Your task to perform on an android device: Show me productivity apps on the Play Store Image 0: 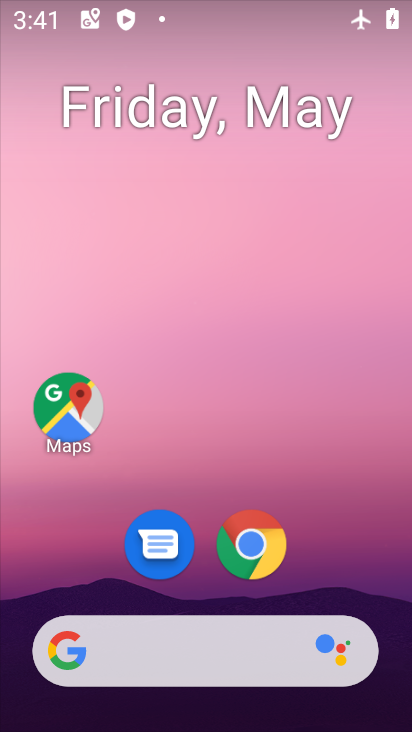
Step 0: drag from (254, 692) to (36, 6)
Your task to perform on an android device: Show me productivity apps on the Play Store Image 1: 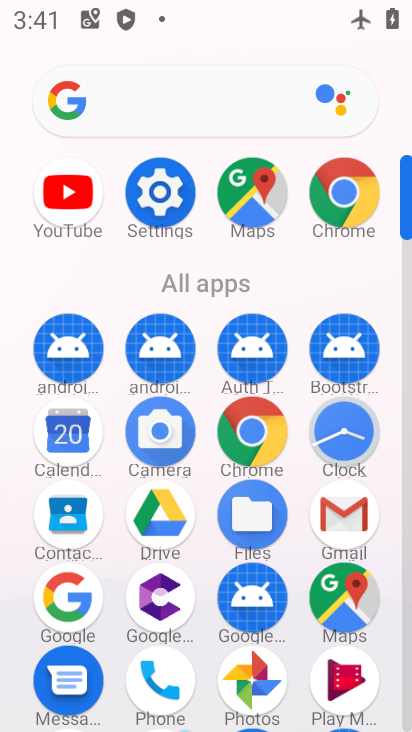
Step 1: drag from (179, 567) to (154, 226)
Your task to perform on an android device: Show me productivity apps on the Play Store Image 2: 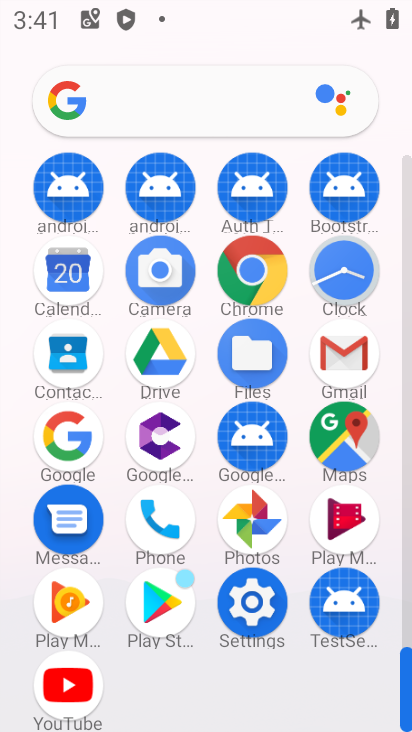
Step 2: drag from (184, 414) to (184, 142)
Your task to perform on an android device: Show me productivity apps on the Play Store Image 3: 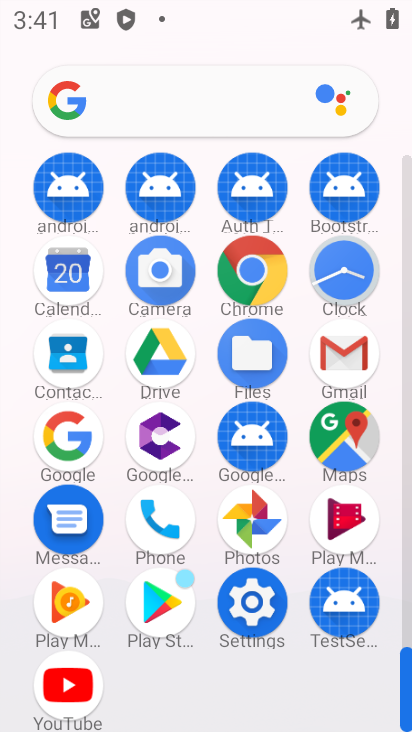
Step 3: click (170, 611)
Your task to perform on an android device: Show me productivity apps on the Play Store Image 4: 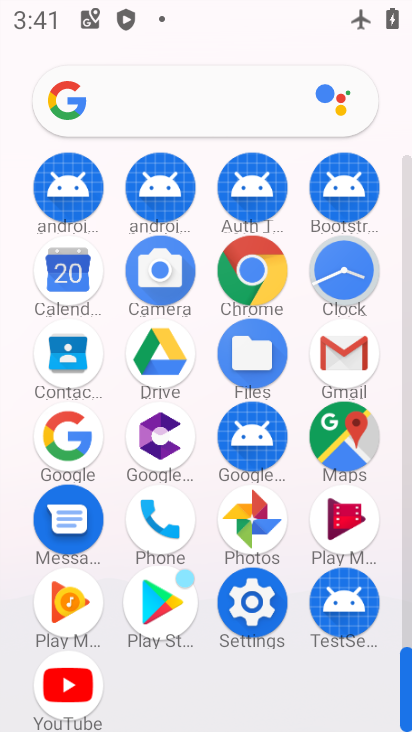
Step 4: click (169, 611)
Your task to perform on an android device: Show me productivity apps on the Play Store Image 5: 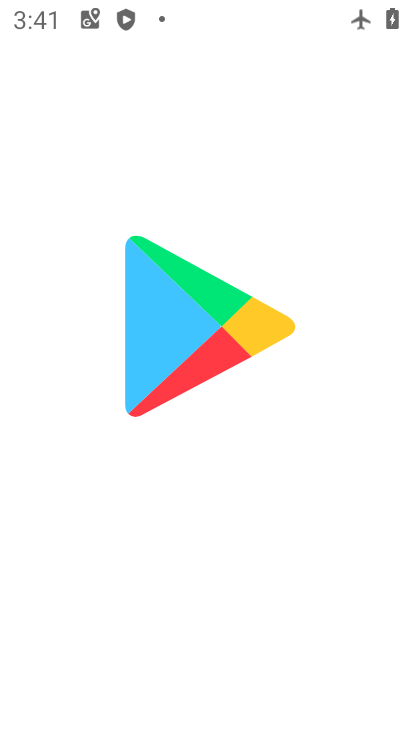
Step 5: click (172, 604)
Your task to perform on an android device: Show me productivity apps on the Play Store Image 6: 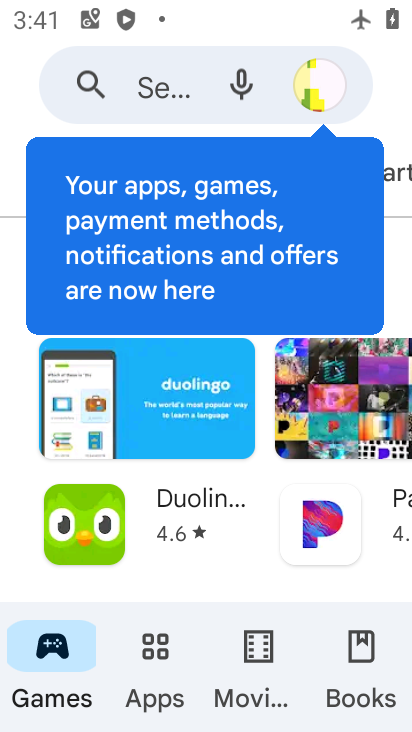
Step 6: press back button
Your task to perform on an android device: Show me productivity apps on the Play Store Image 7: 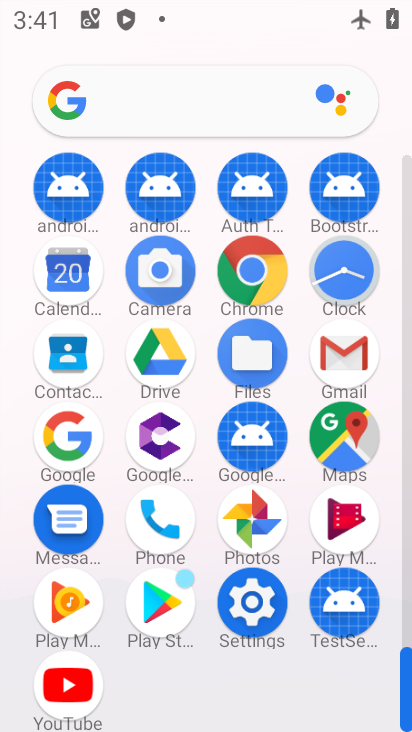
Step 7: click (257, 608)
Your task to perform on an android device: Show me productivity apps on the Play Store Image 8: 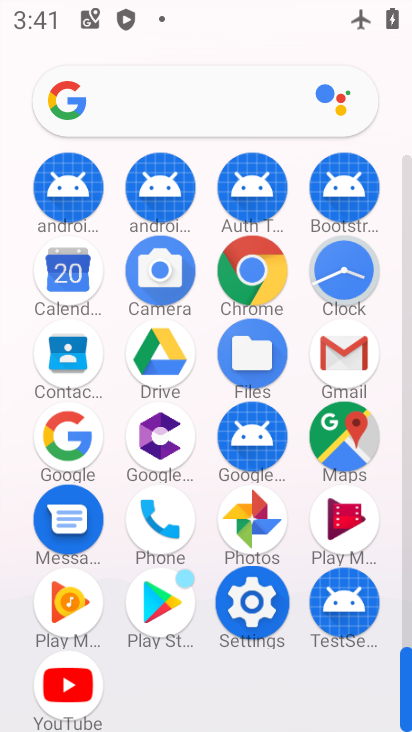
Step 8: click (257, 608)
Your task to perform on an android device: Show me productivity apps on the Play Store Image 9: 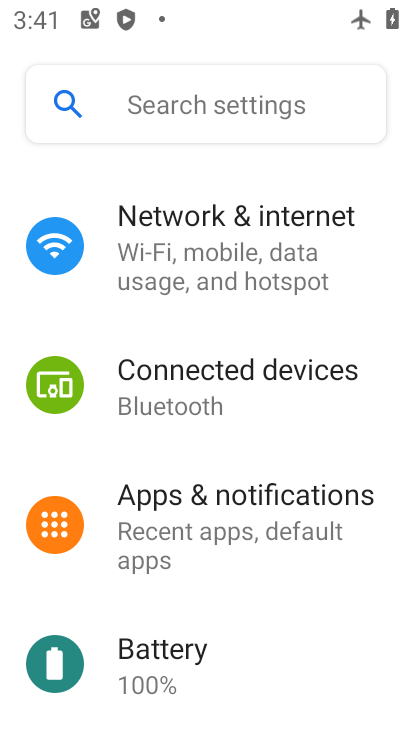
Step 9: click (179, 226)
Your task to perform on an android device: Show me productivity apps on the Play Store Image 10: 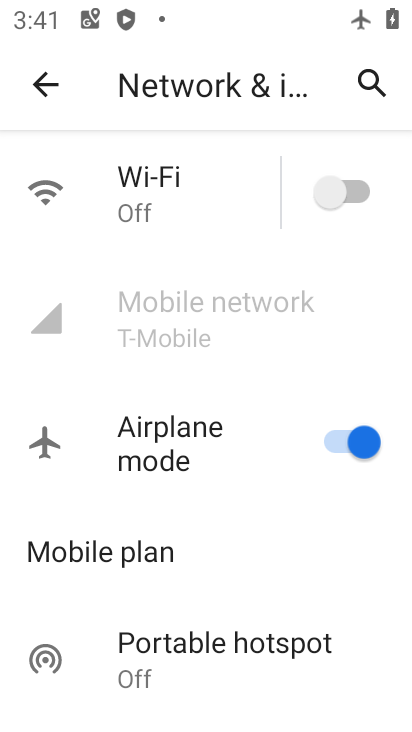
Step 10: click (365, 446)
Your task to perform on an android device: Show me productivity apps on the Play Store Image 11: 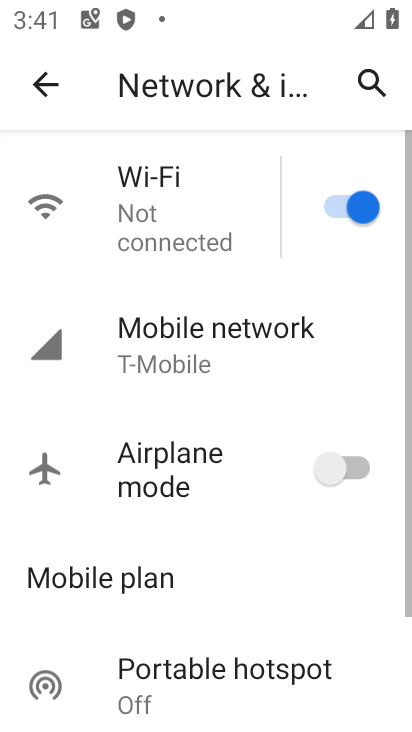
Step 11: click (332, 191)
Your task to perform on an android device: Show me productivity apps on the Play Store Image 12: 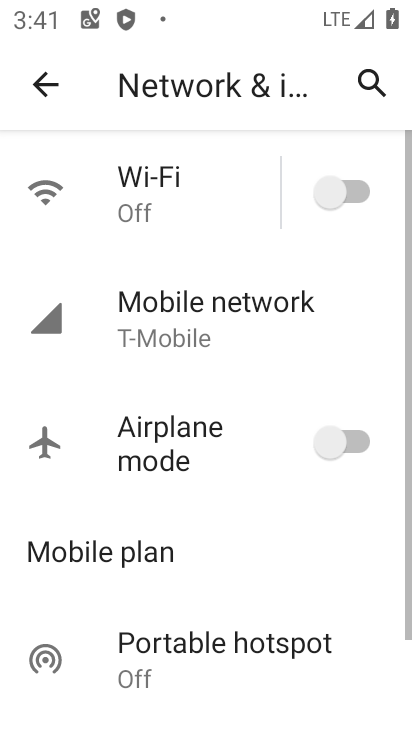
Step 12: click (332, 191)
Your task to perform on an android device: Show me productivity apps on the Play Store Image 13: 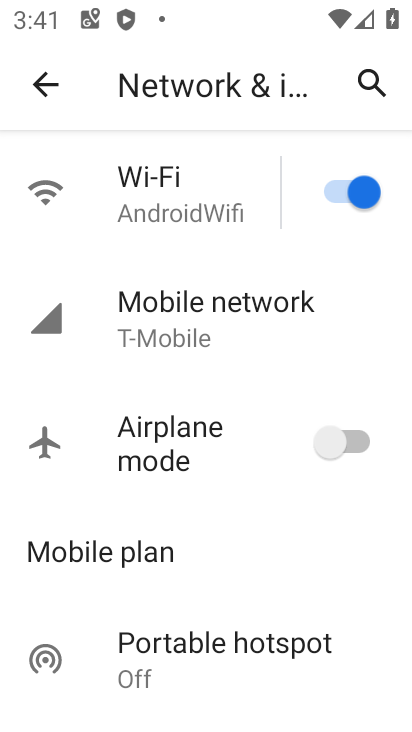
Step 13: press back button
Your task to perform on an android device: Show me productivity apps on the Play Store Image 14: 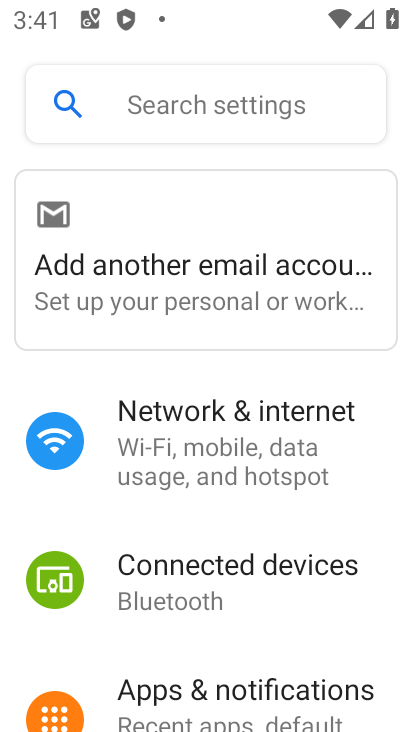
Step 14: press home button
Your task to perform on an android device: Show me productivity apps on the Play Store Image 15: 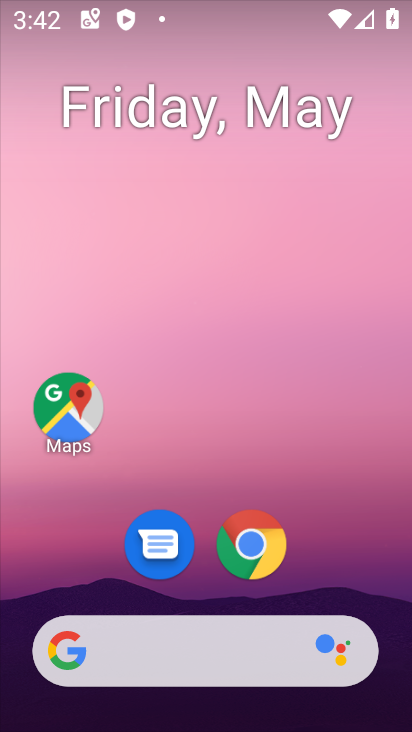
Step 15: drag from (211, 27) to (192, 83)
Your task to perform on an android device: Show me productivity apps on the Play Store Image 16: 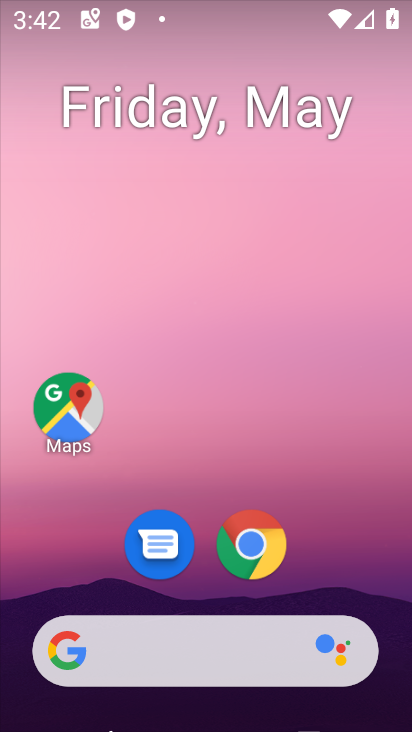
Step 16: drag from (285, 282) to (326, 8)
Your task to perform on an android device: Show me productivity apps on the Play Store Image 17: 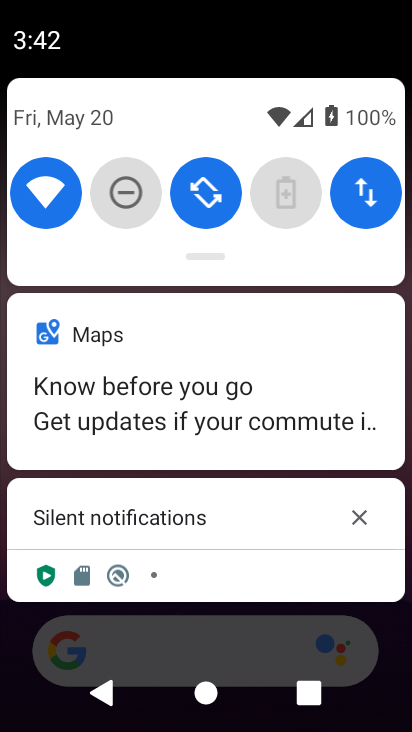
Step 17: click (358, 513)
Your task to perform on an android device: Show me productivity apps on the Play Store Image 18: 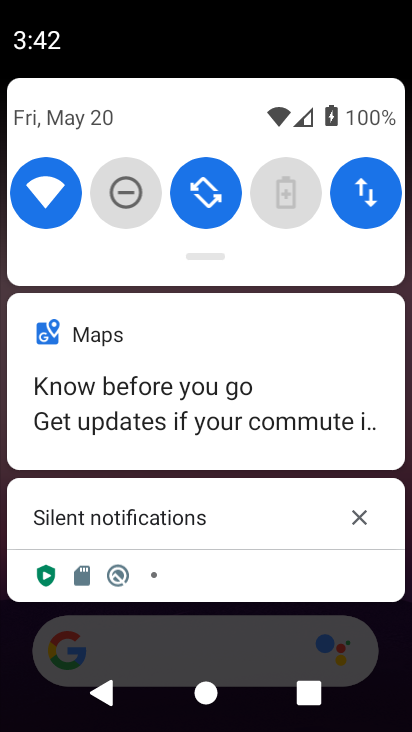
Step 18: click (358, 513)
Your task to perform on an android device: Show me productivity apps on the Play Store Image 19: 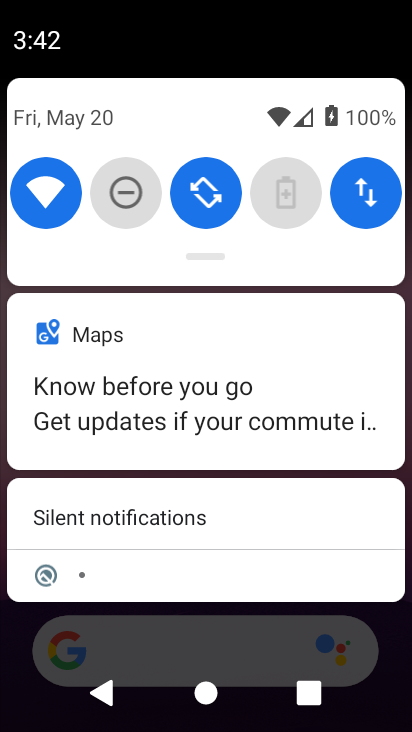
Step 19: click (358, 513)
Your task to perform on an android device: Show me productivity apps on the Play Store Image 20: 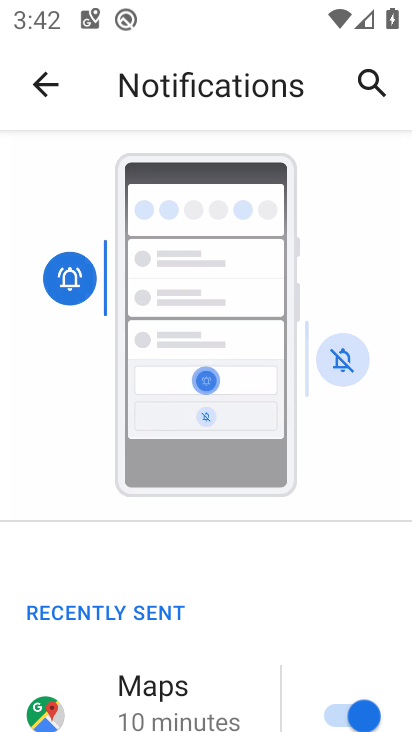
Step 20: press back button
Your task to perform on an android device: Show me productivity apps on the Play Store Image 21: 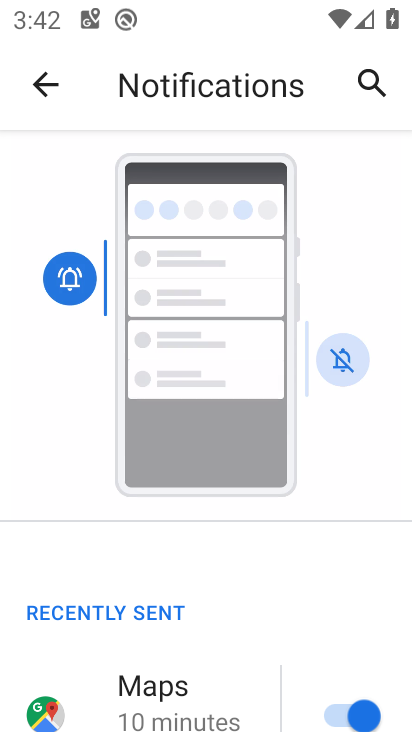
Step 21: press back button
Your task to perform on an android device: Show me productivity apps on the Play Store Image 22: 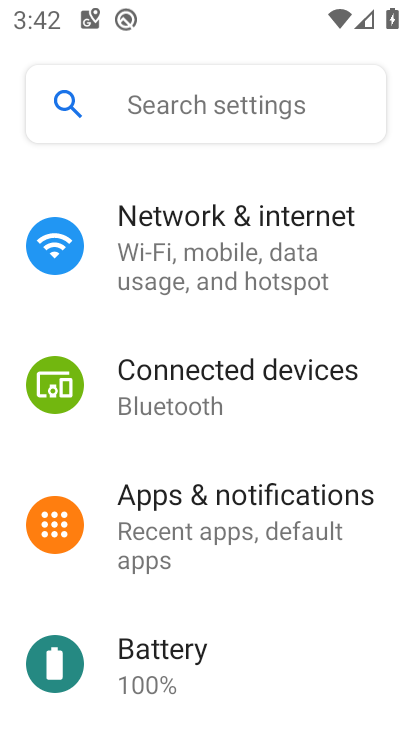
Step 22: press back button
Your task to perform on an android device: Show me productivity apps on the Play Store Image 23: 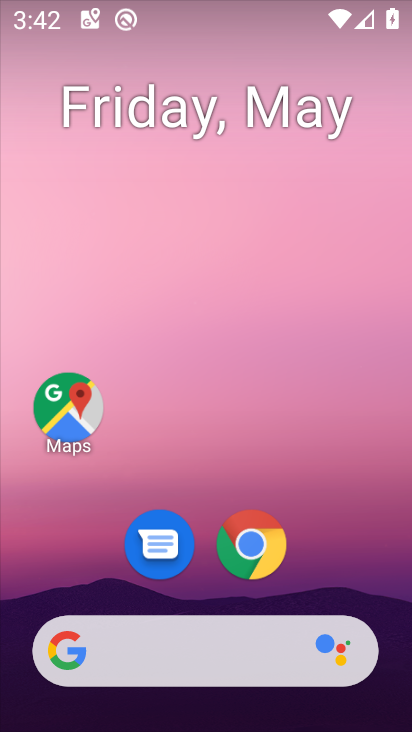
Step 23: drag from (258, 696) to (37, 8)
Your task to perform on an android device: Show me productivity apps on the Play Store Image 24: 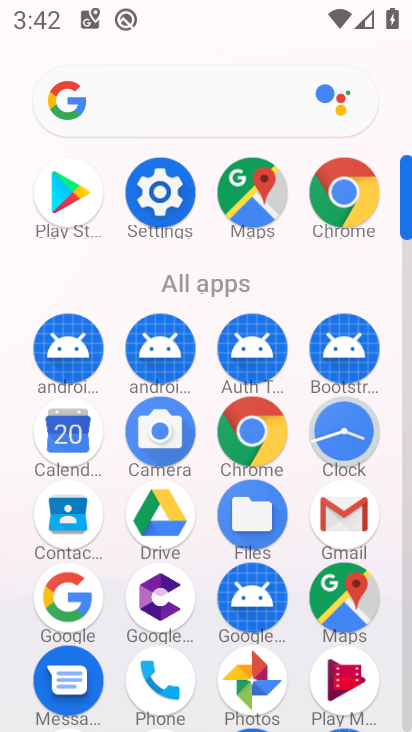
Step 24: drag from (192, 575) to (159, 81)
Your task to perform on an android device: Show me productivity apps on the Play Store Image 25: 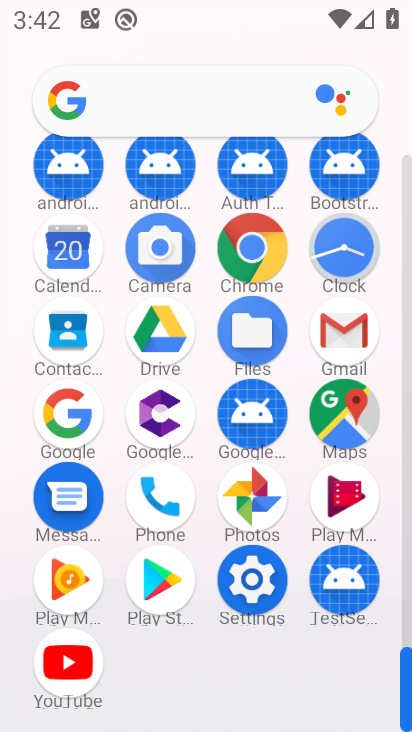
Step 25: drag from (188, 426) to (173, 123)
Your task to perform on an android device: Show me productivity apps on the Play Store Image 26: 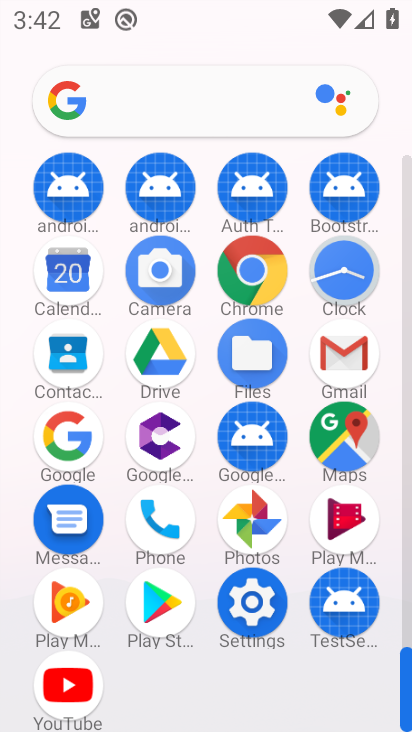
Step 26: click (153, 593)
Your task to perform on an android device: Show me productivity apps on the Play Store Image 27: 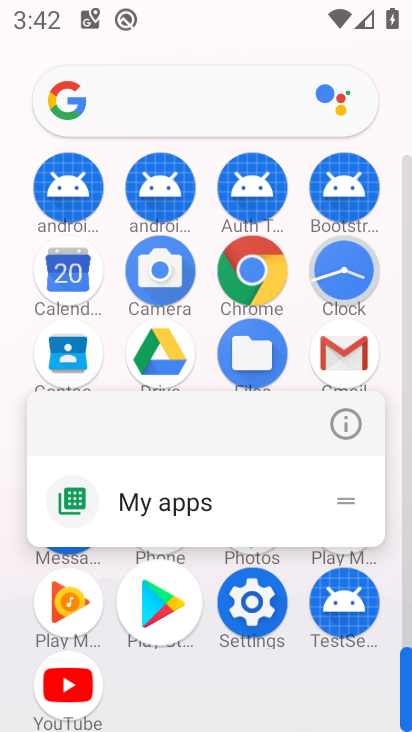
Step 27: click (153, 593)
Your task to perform on an android device: Show me productivity apps on the Play Store Image 28: 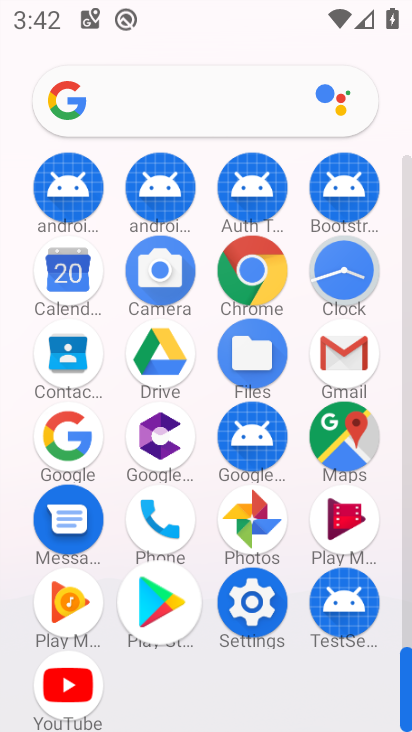
Step 28: click (159, 591)
Your task to perform on an android device: Show me productivity apps on the Play Store Image 29: 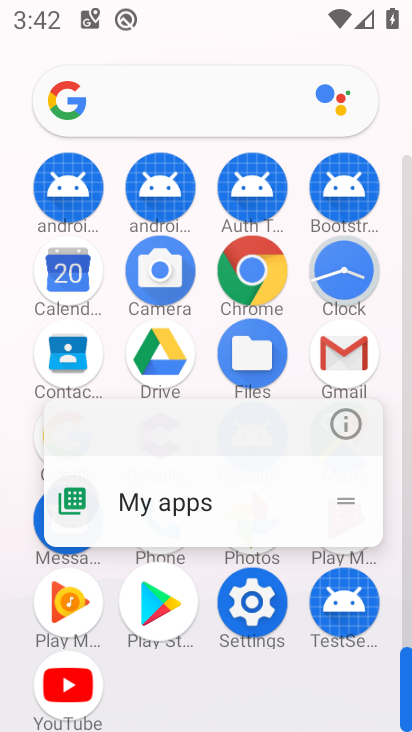
Step 29: click (160, 589)
Your task to perform on an android device: Show me productivity apps on the Play Store Image 30: 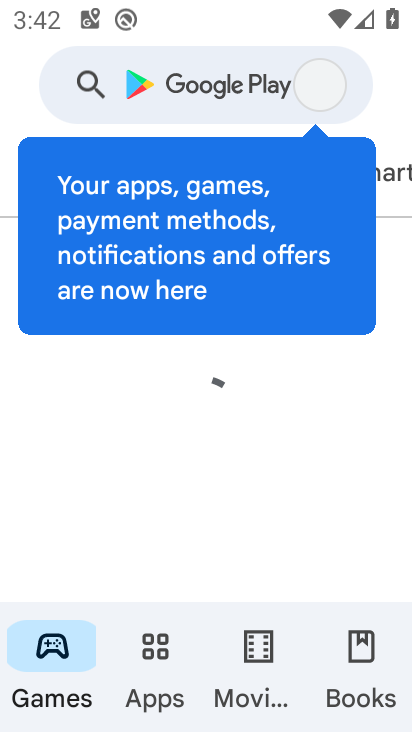
Step 30: click (160, 589)
Your task to perform on an android device: Show me productivity apps on the Play Store Image 31: 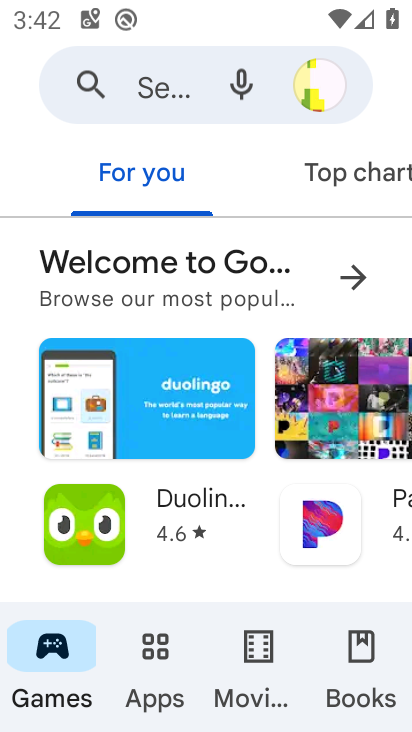
Step 31: click (132, 90)
Your task to perform on an android device: Show me productivity apps on the Play Store Image 32: 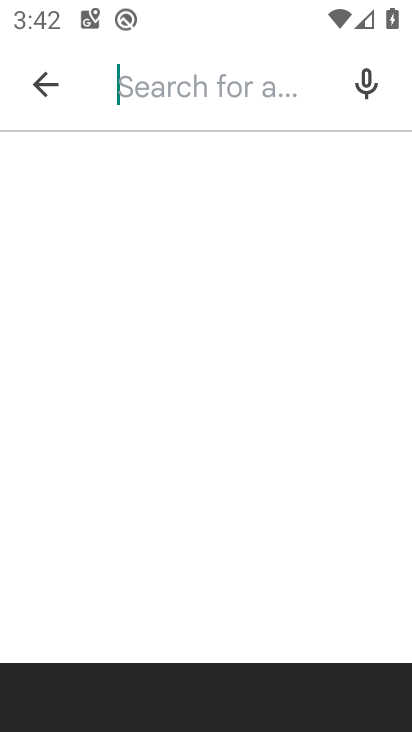
Step 32: click (132, 90)
Your task to perform on an android device: Show me productivity apps on the Play Store Image 33: 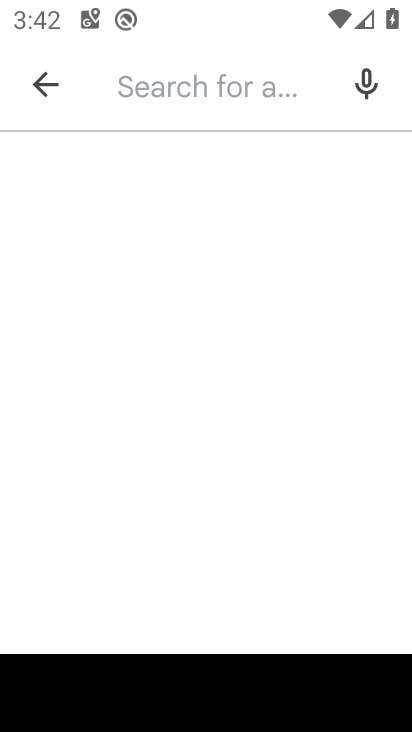
Step 33: click (132, 90)
Your task to perform on an android device: Show me productivity apps on the Play Store Image 34: 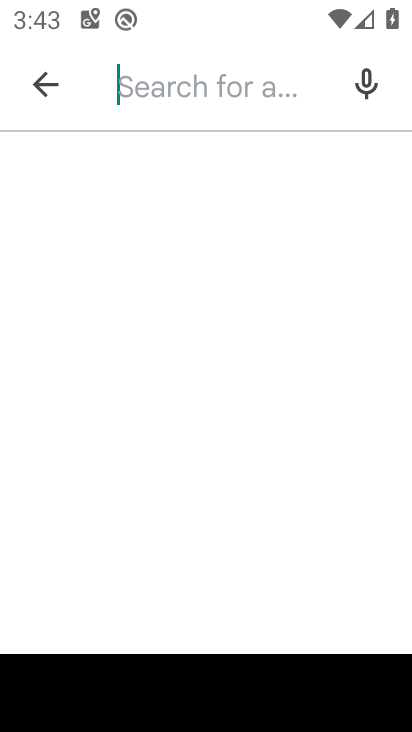
Step 34: type "productivity apps"
Your task to perform on an android device: Show me productivity apps on the Play Store Image 35: 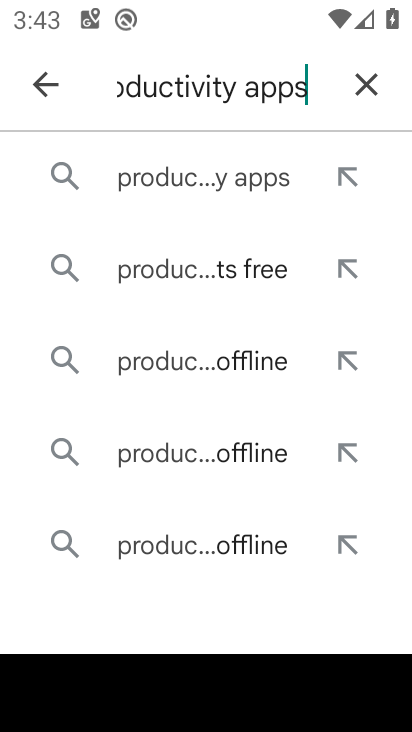
Step 35: click (240, 177)
Your task to perform on an android device: Show me productivity apps on the Play Store Image 36: 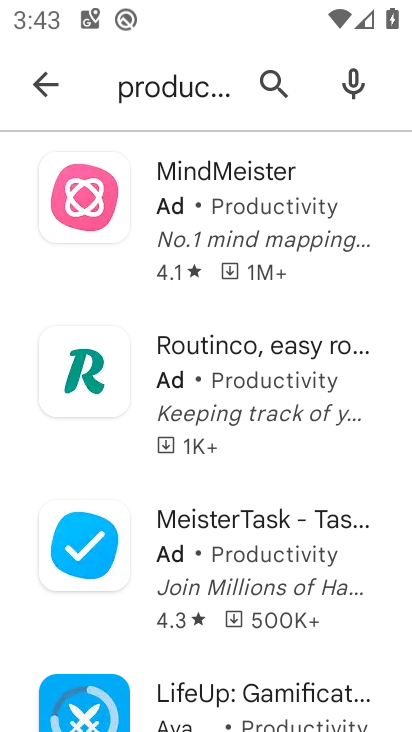
Step 36: drag from (258, 186) to (254, 80)
Your task to perform on an android device: Show me productivity apps on the Play Store Image 37: 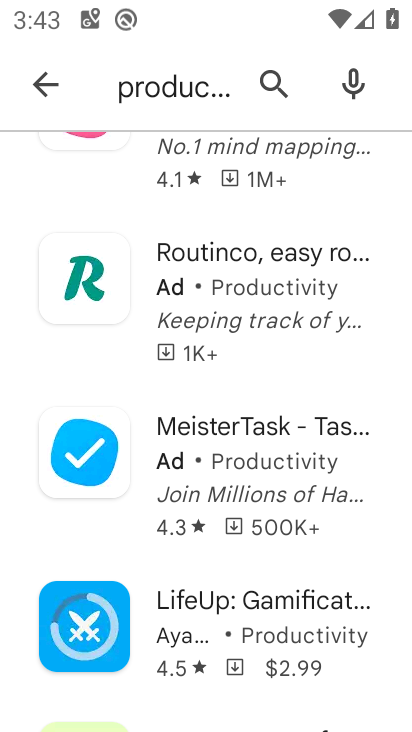
Step 37: drag from (205, 389) to (159, 185)
Your task to perform on an android device: Show me productivity apps on the Play Store Image 38: 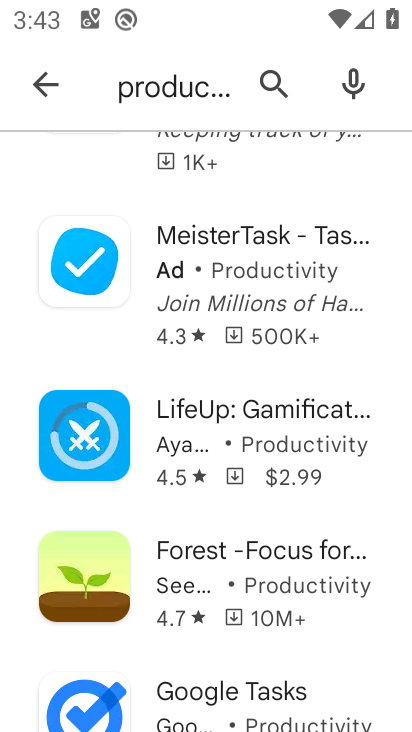
Step 38: drag from (182, 471) to (132, 206)
Your task to perform on an android device: Show me productivity apps on the Play Store Image 39: 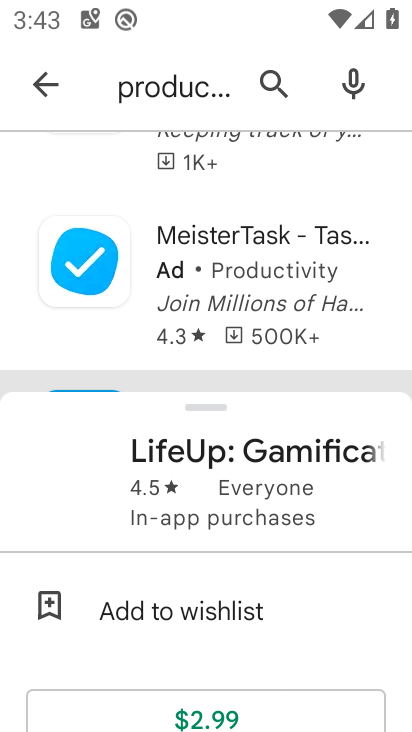
Step 39: drag from (153, 553) to (153, 292)
Your task to perform on an android device: Show me productivity apps on the Play Store Image 40: 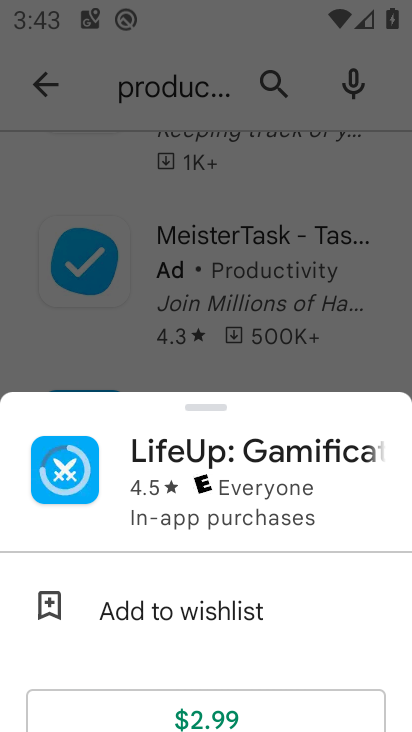
Step 40: drag from (214, 515) to (222, 409)
Your task to perform on an android device: Show me productivity apps on the Play Store Image 41: 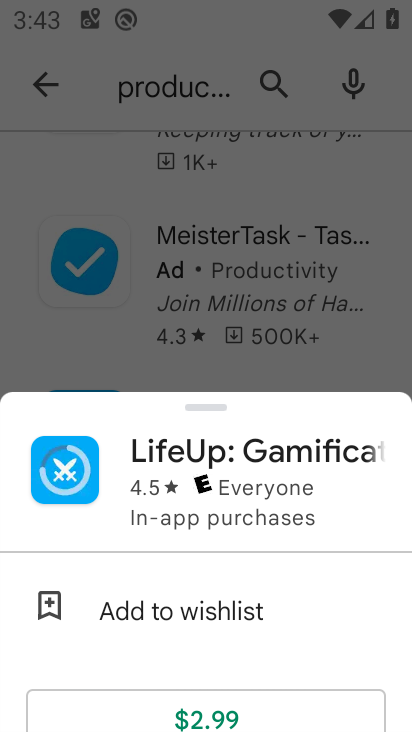
Step 41: click (351, 343)
Your task to perform on an android device: Show me productivity apps on the Play Store Image 42: 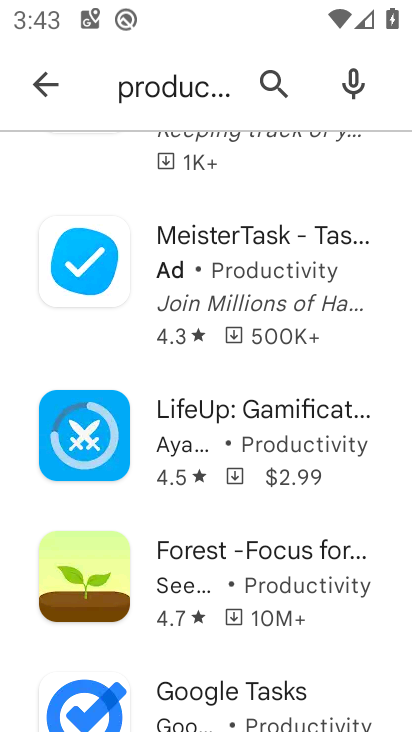
Step 42: task complete